Your task to perform on an android device: open a new tab in the chrome app Image 0: 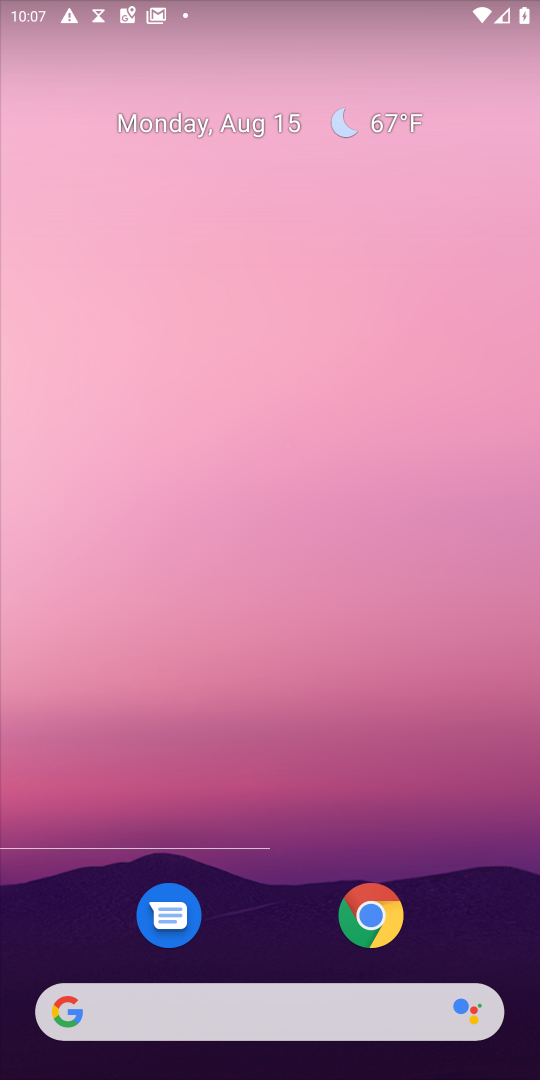
Step 0: press home button
Your task to perform on an android device: open a new tab in the chrome app Image 1: 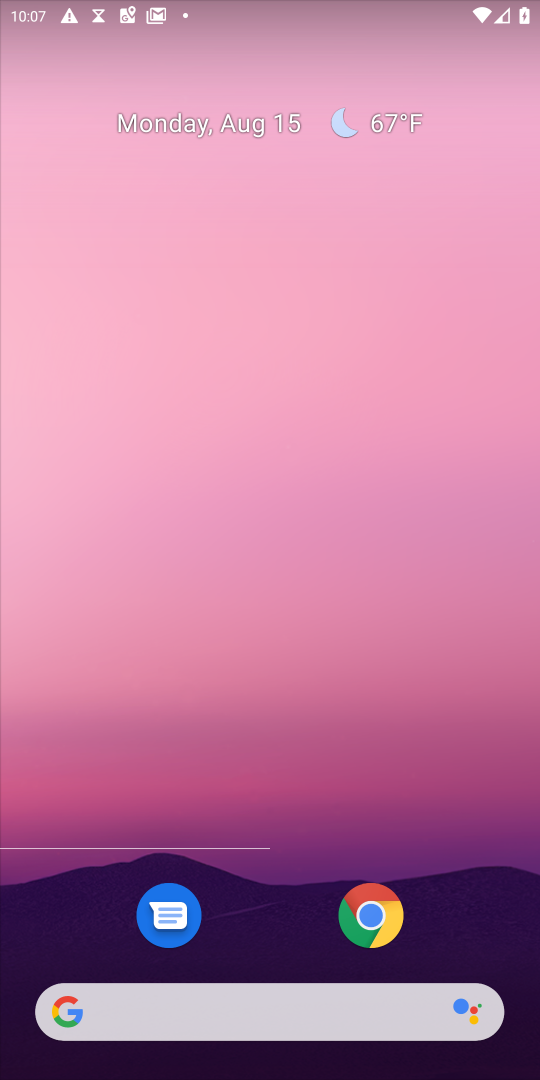
Step 1: click (365, 923)
Your task to perform on an android device: open a new tab in the chrome app Image 2: 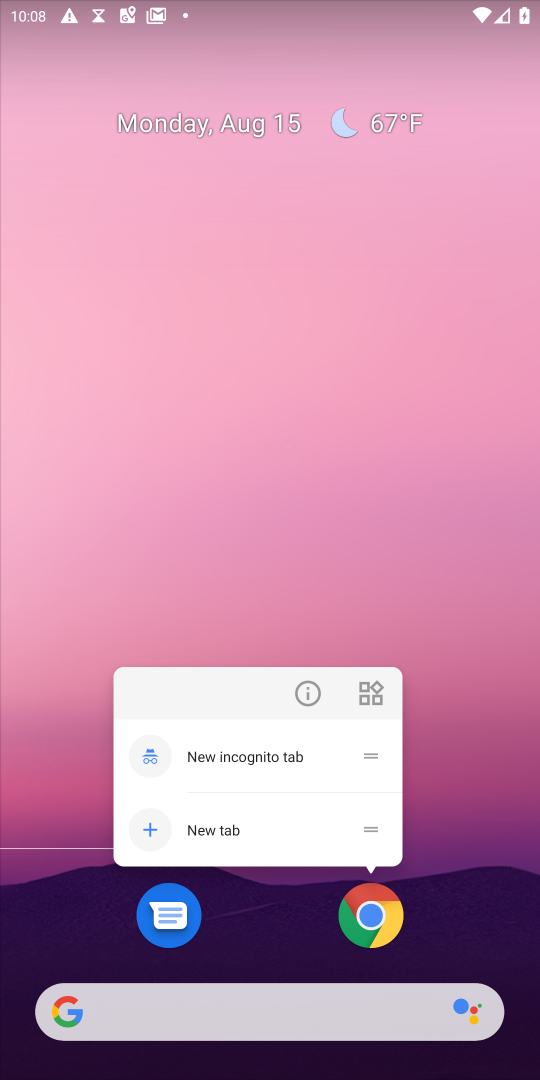
Step 2: click (381, 874)
Your task to perform on an android device: open a new tab in the chrome app Image 3: 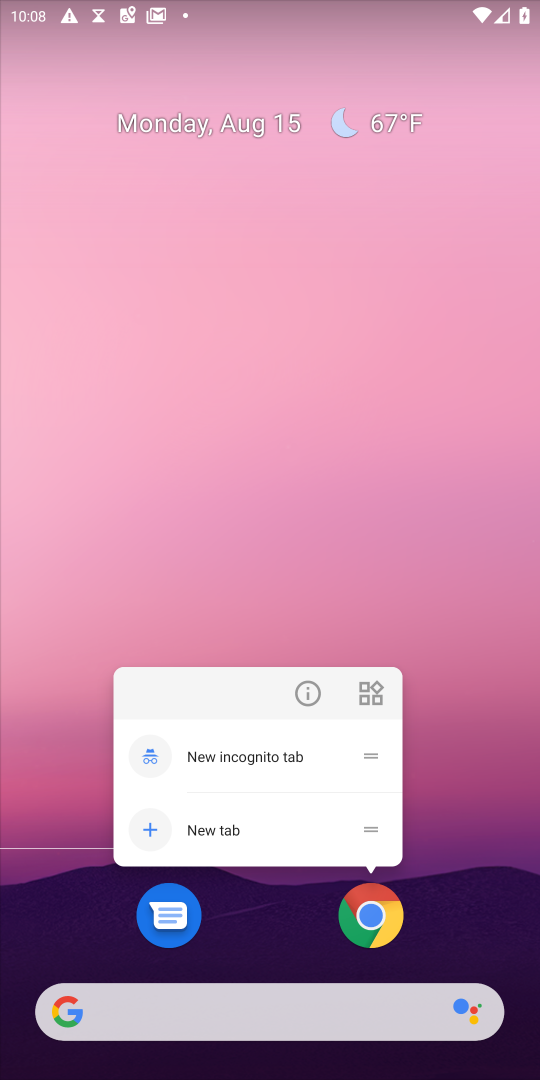
Step 3: click (394, 910)
Your task to perform on an android device: open a new tab in the chrome app Image 4: 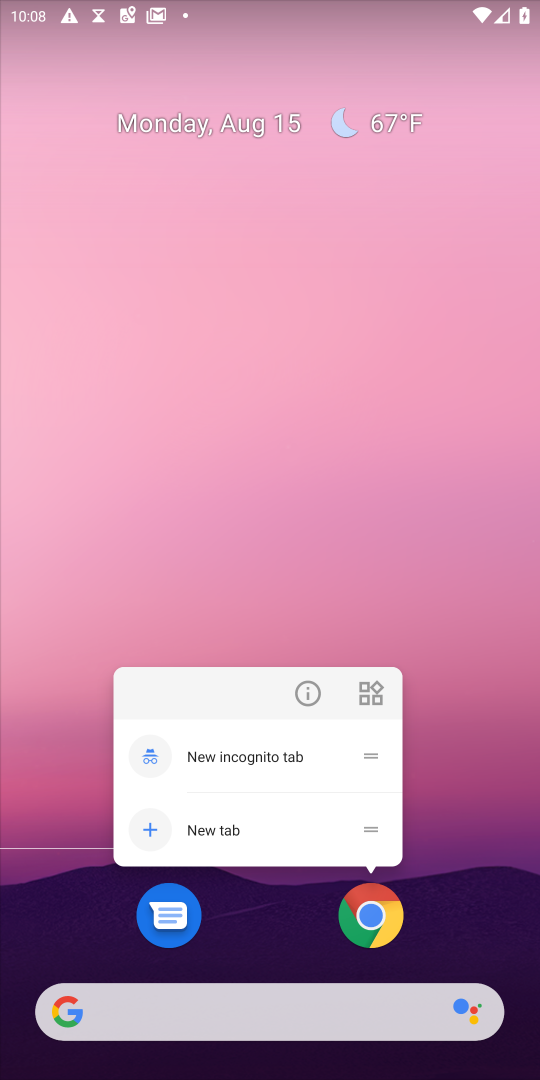
Step 4: click (394, 910)
Your task to perform on an android device: open a new tab in the chrome app Image 5: 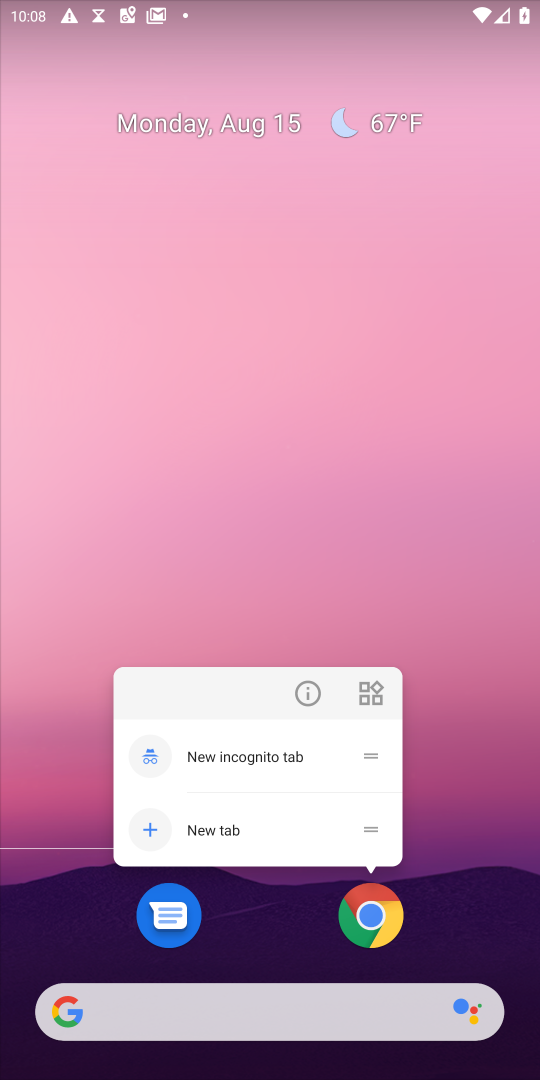
Step 5: click (375, 924)
Your task to perform on an android device: open a new tab in the chrome app Image 6: 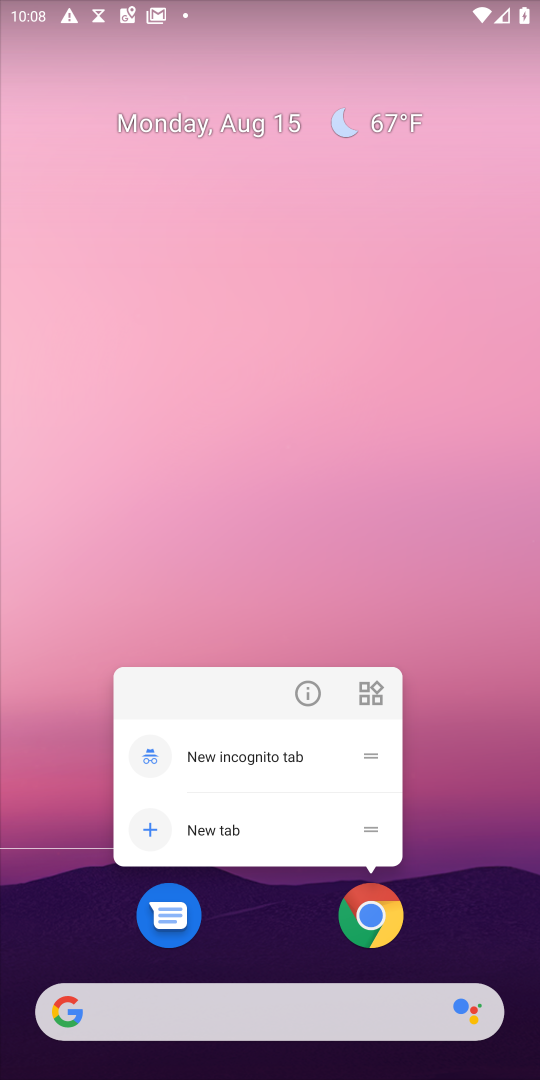
Step 6: click (375, 924)
Your task to perform on an android device: open a new tab in the chrome app Image 7: 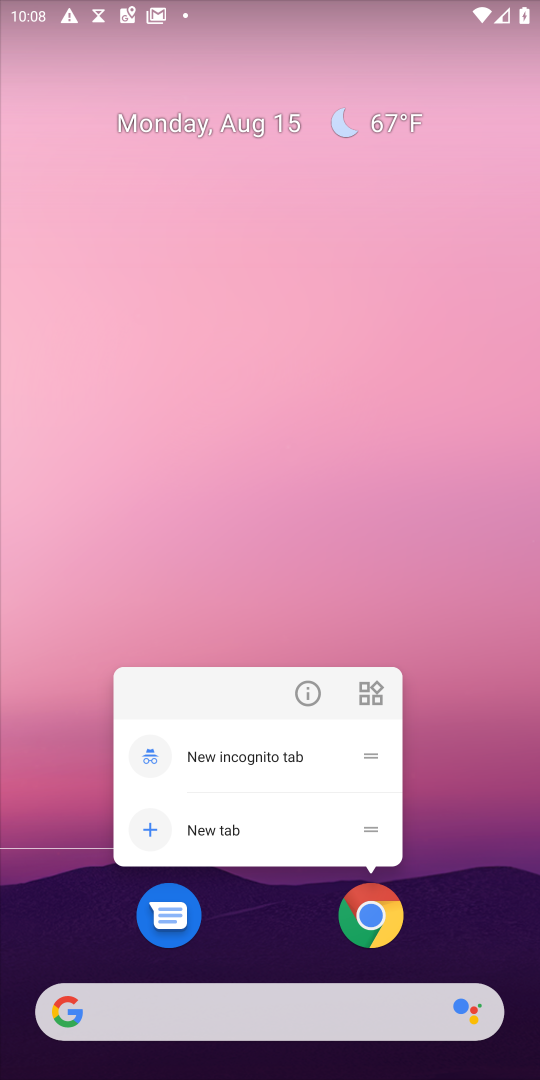
Step 7: click (361, 936)
Your task to perform on an android device: open a new tab in the chrome app Image 8: 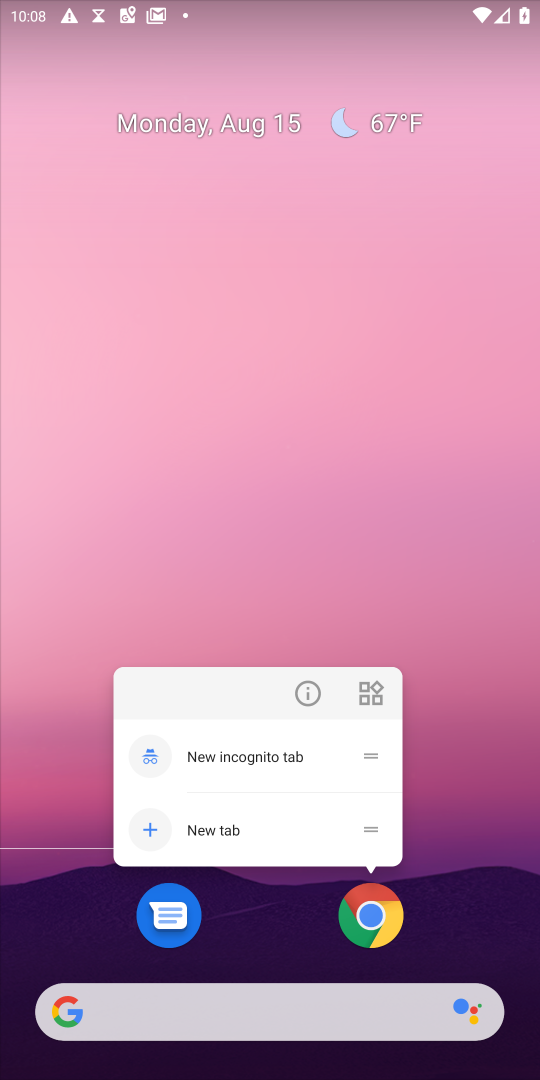
Step 8: click (388, 936)
Your task to perform on an android device: open a new tab in the chrome app Image 9: 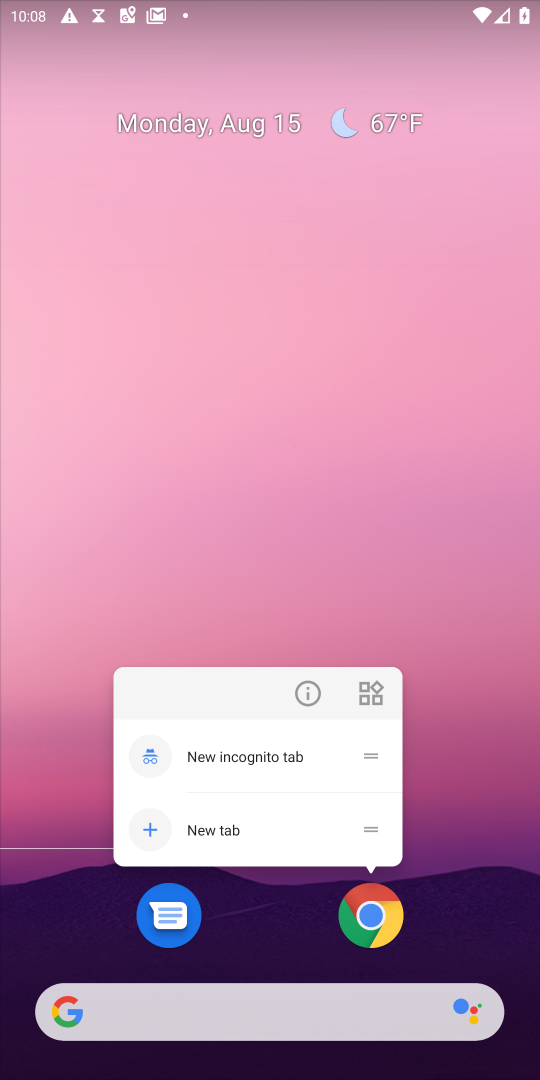
Step 9: click (353, 391)
Your task to perform on an android device: open a new tab in the chrome app Image 10: 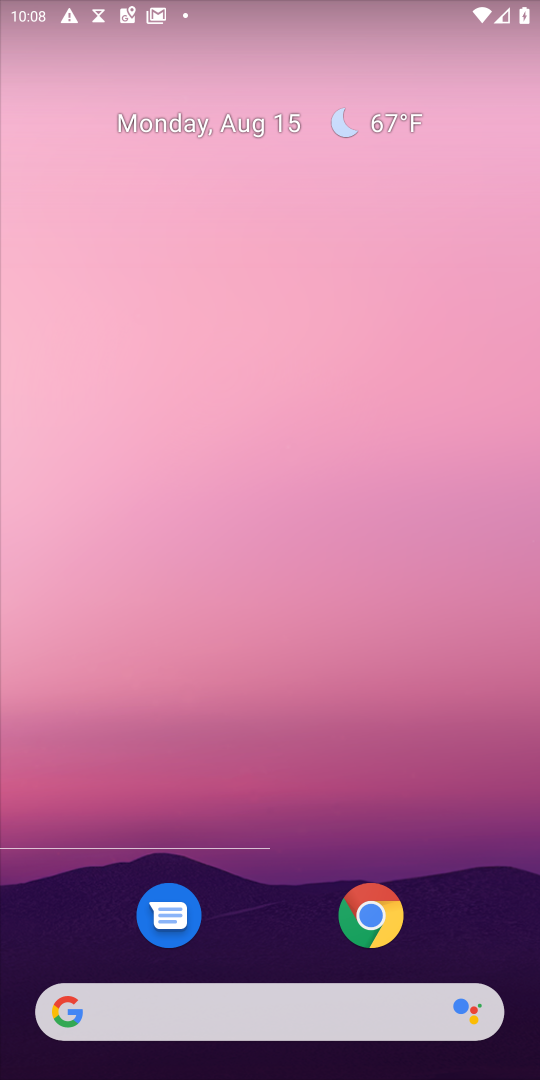
Step 10: click (363, 929)
Your task to perform on an android device: open a new tab in the chrome app Image 11: 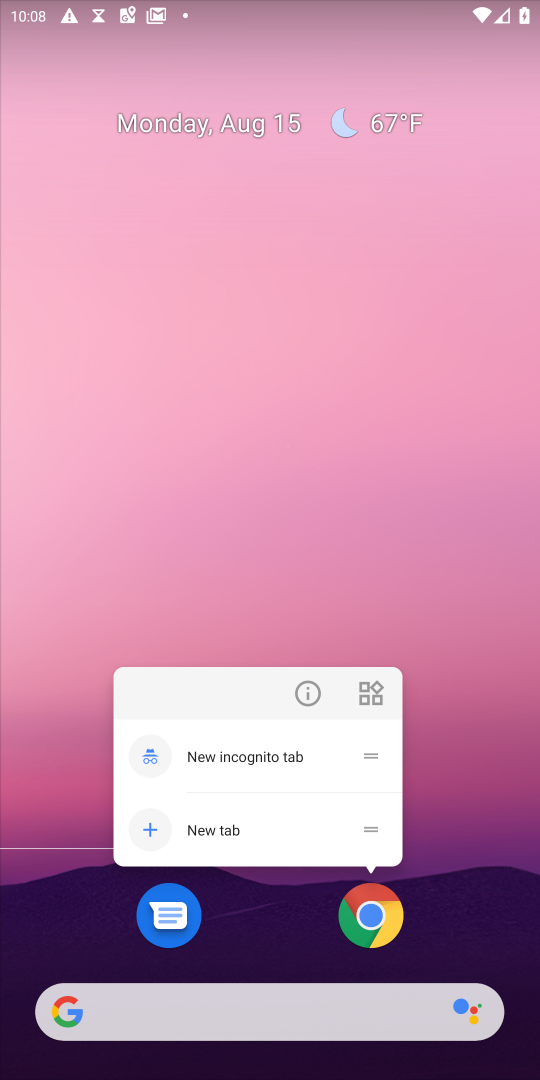
Step 11: click (363, 929)
Your task to perform on an android device: open a new tab in the chrome app Image 12: 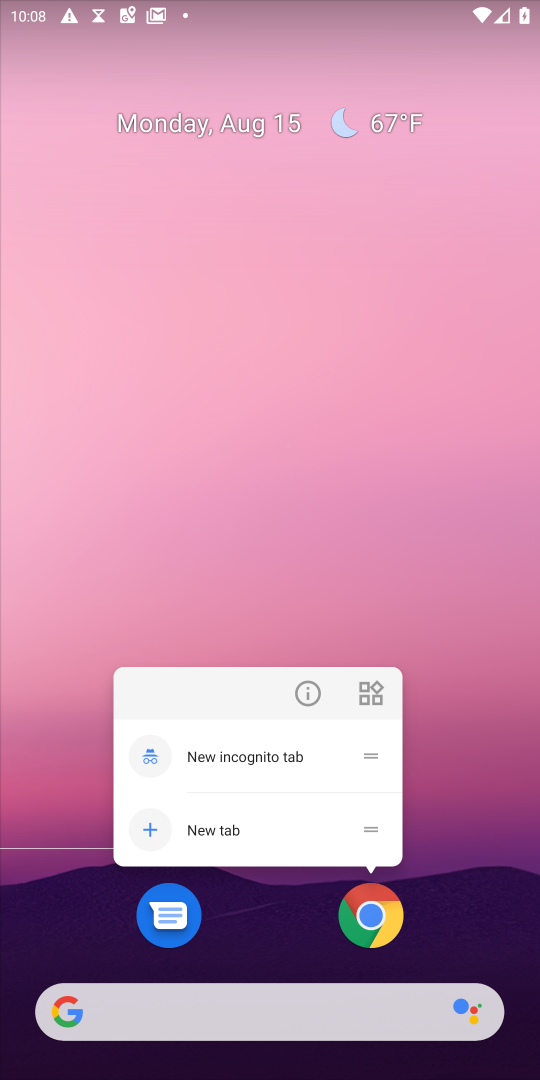
Step 12: drag from (493, 822) to (525, 132)
Your task to perform on an android device: open a new tab in the chrome app Image 13: 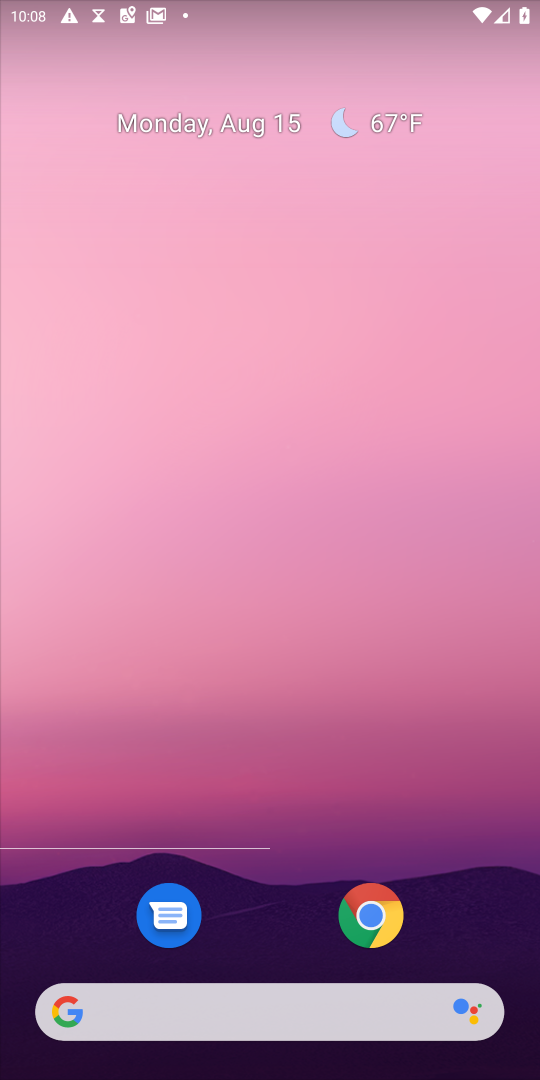
Step 13: drag from (300, 879) to (247, 33)
Your task to perform on an android device: open a new tab in the chrome app Image 14: 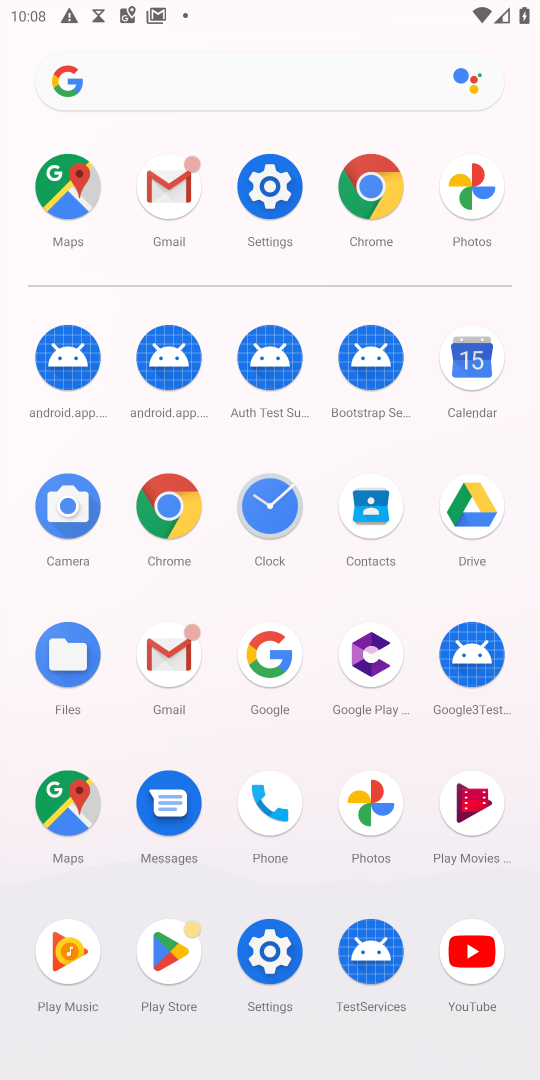
Step 14: click (177, 515)
Your task to perform on an android device: open a new tab in the chrome app Image 15: 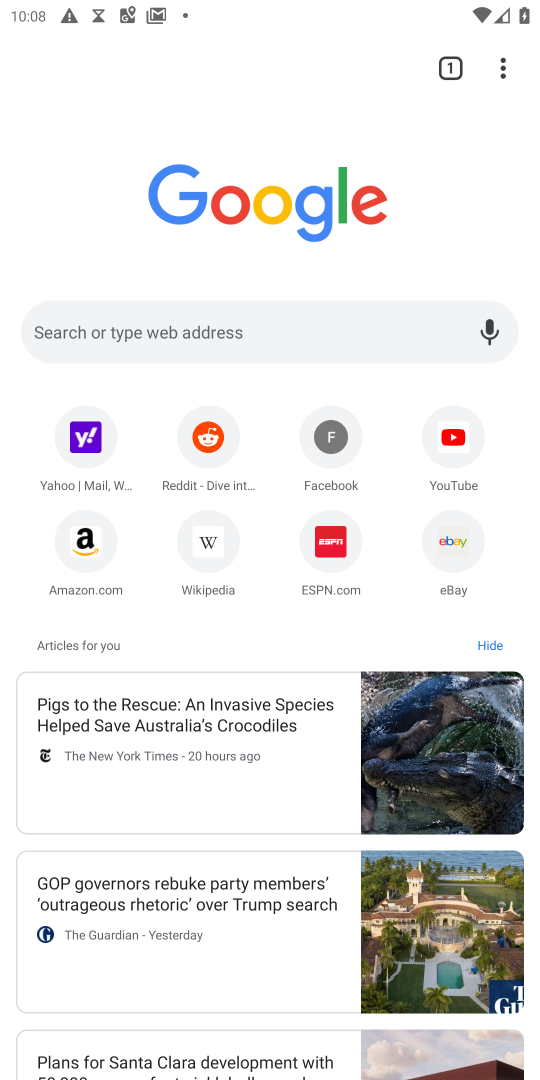
Step 15: click (501, 66)
Your task to perform on an android device: open a new tab in the chrome app Image 16: 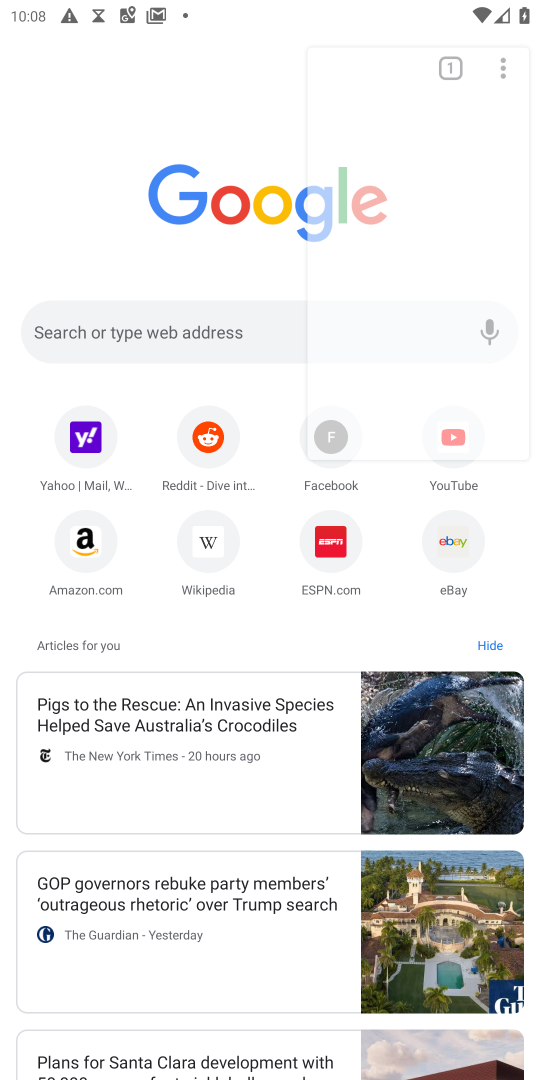
Step 16: click (501, 66)
Your task to perform on an android device: open a new tab in the chrome app Image 17: 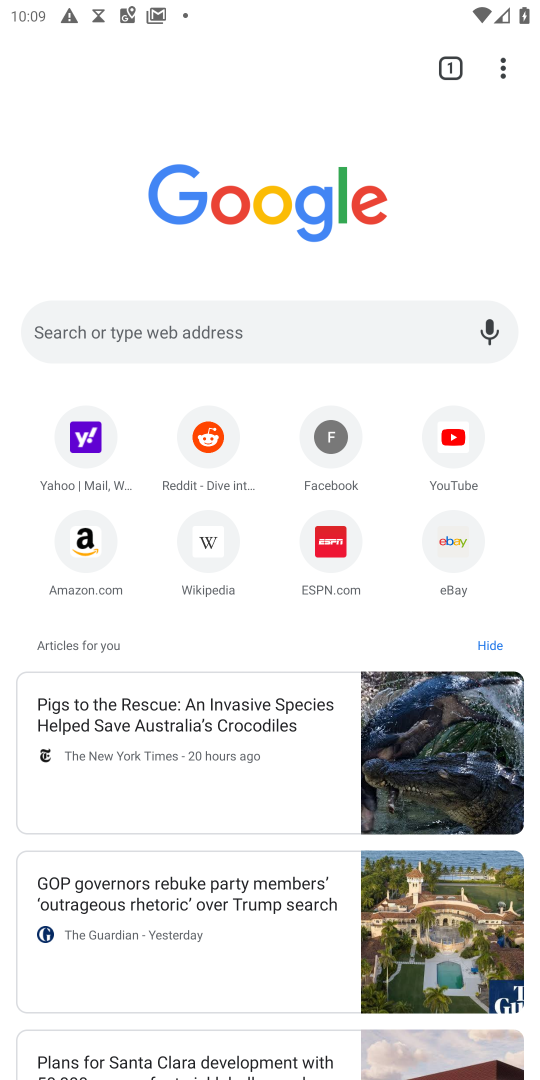
Step 17: task complete